Your task to perform on an android device: toggle location history Image 0: 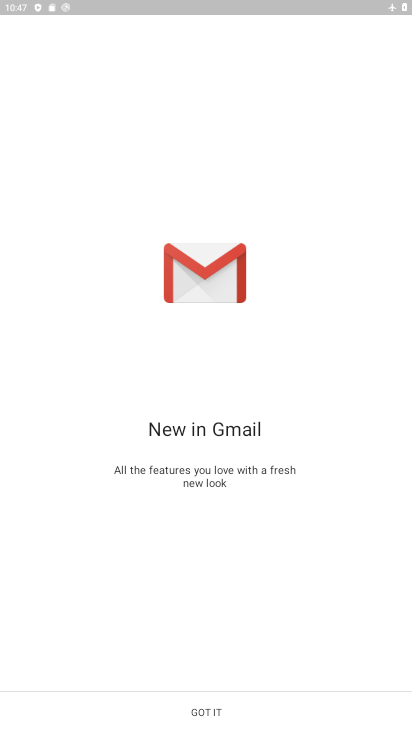
Step 0: press home button
Your task to perform on an android device: toggle location history Image 1: 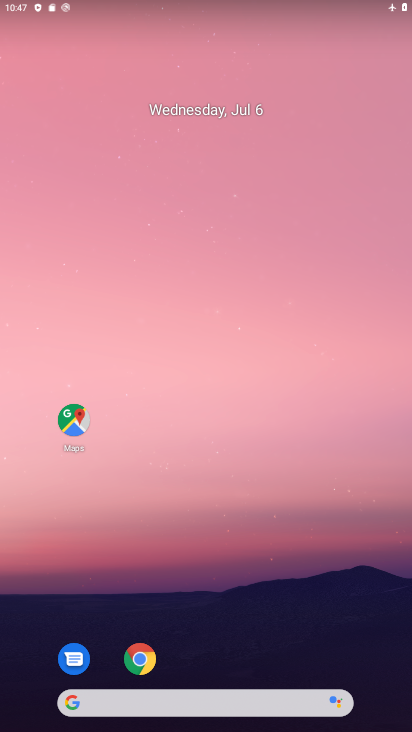
Step 1: drag from (211, 634) to (204, 145)
Your task to perform on an android device: toggle location history Image 2: 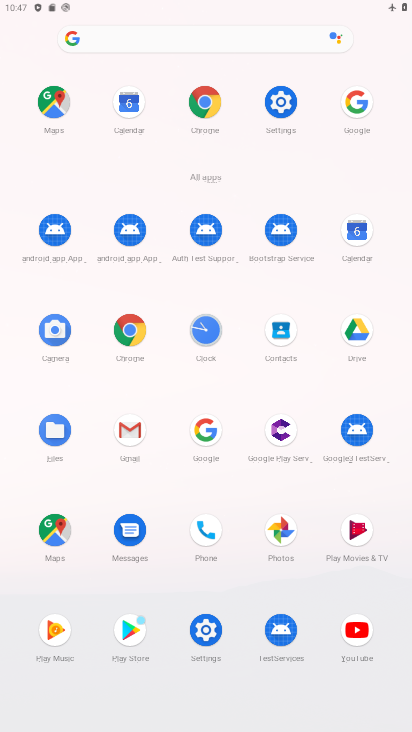
Step 2: click (292, 106)
Your task to perform on an android device: toggle location history Image 3: 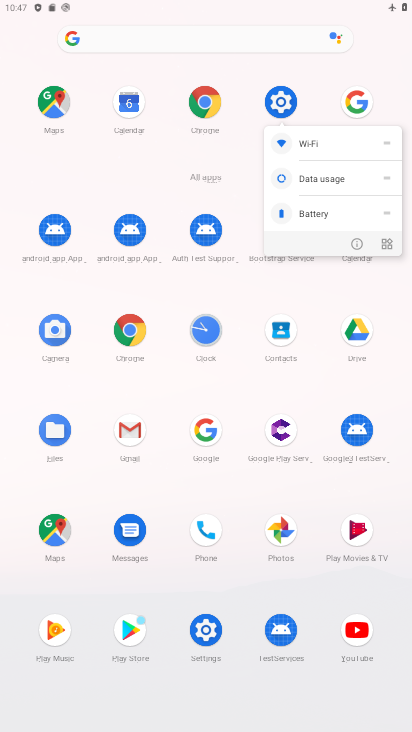
Step 3: click (282, 102)
Your task to perform on an android device: toggle location history Image 4: 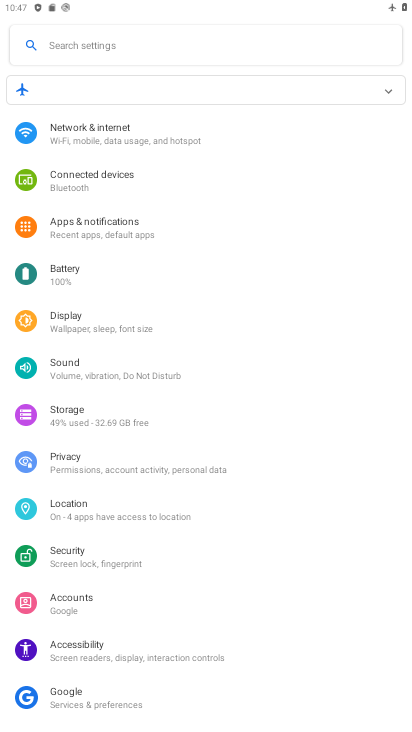
Step 4: click (77, 509)
Your task to perform on an android device: toggle location history Image 5: 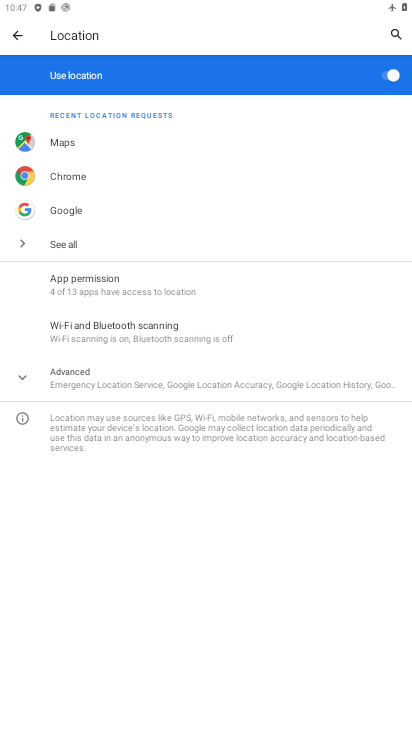
Step 5: click (87, 381)
Your task to perform on an android device: toggle location history Image 6: 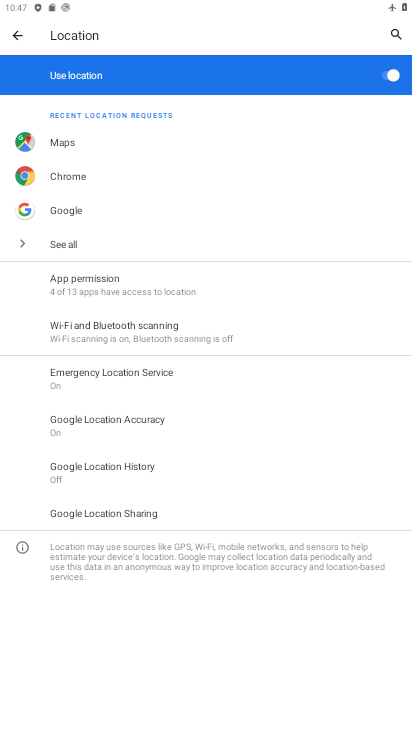
Step 6: click (173, 464)
Your task to perform on an android device: toggle location history Image 7: 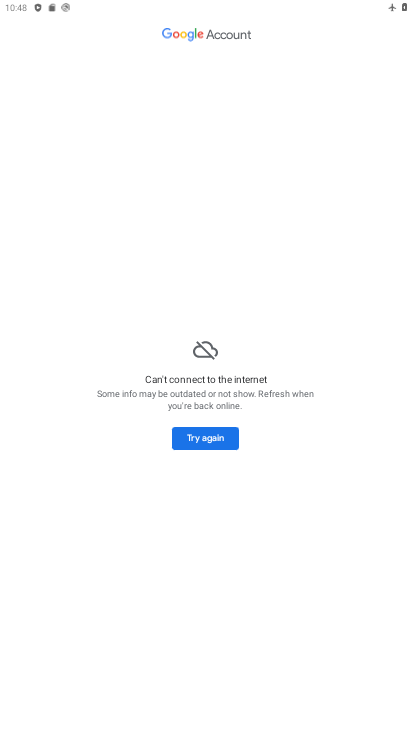
Step 7: task complete